Your task to perform on an android device: turn off location Image 0: 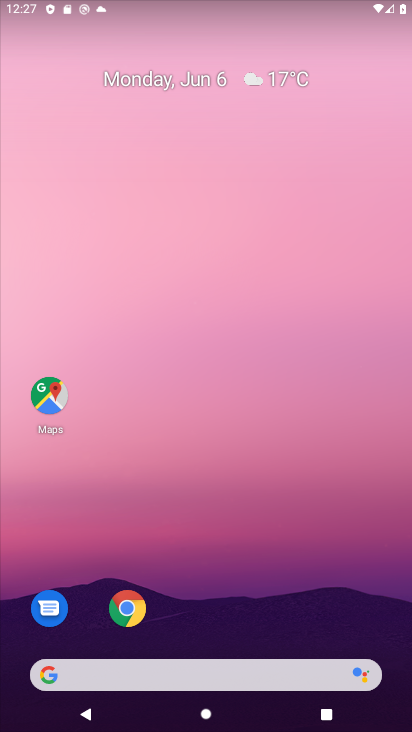
Step 0: drag from (162, 663) to (162, 85)
Your task to perform on an android device: turn off location Image 1: 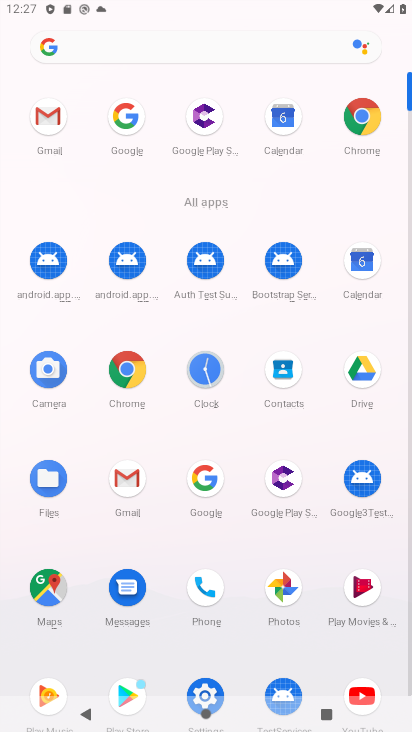
Step 1: click (209, 693)
Your task to perform on an android device: turn off location Image 2: 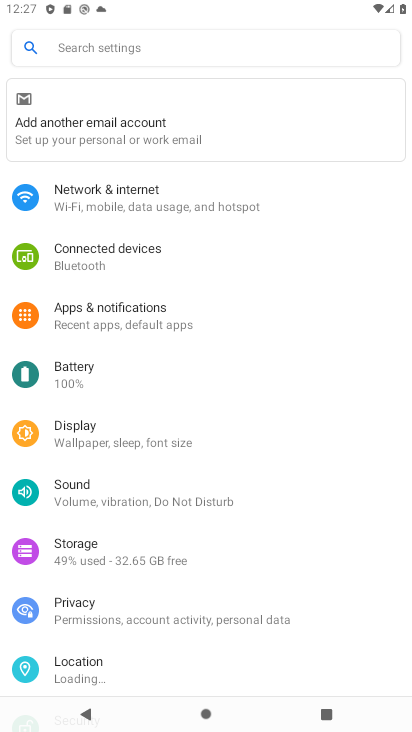
Step 2: click (101, 679)
Your task to perform on an android device: turn off location Image 3: 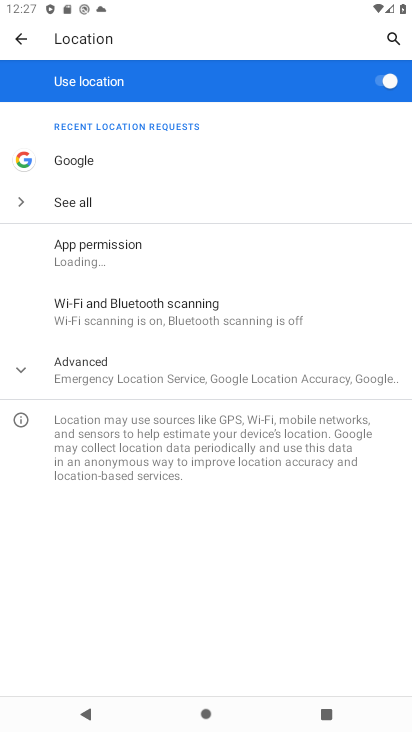
Step 3: click (385, 73)
Your task to perform on an android device: turn off location Image 4: 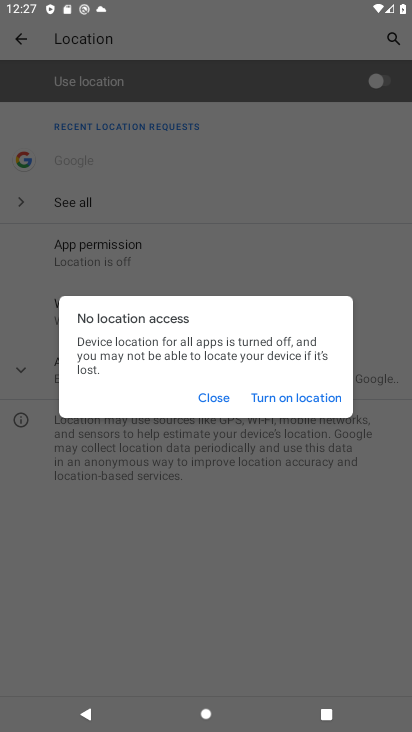
Step 4: click (211, 400)
Your task to perform on an android device: turn off location Image 5: 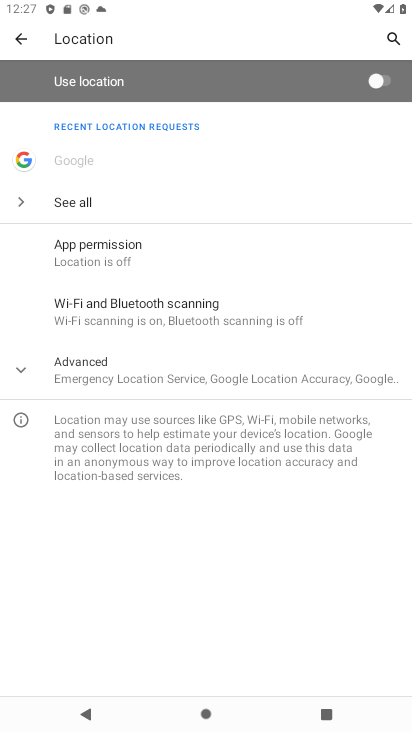
Step 5: task complete